Your task to perform on an android device: Go to notification settings Image 0: 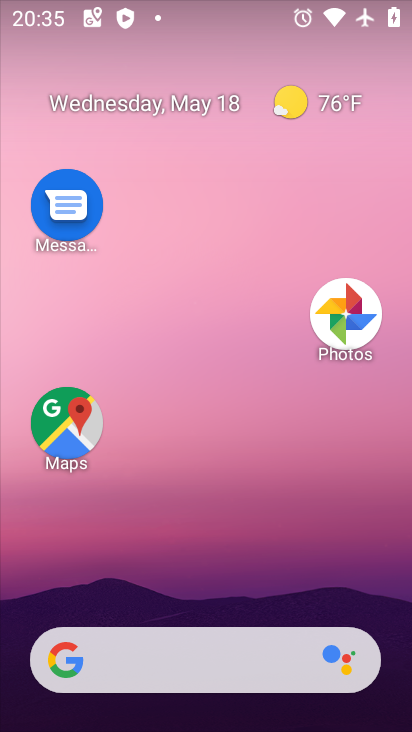
Step 0: drag from (224, 615) to (191, 38)
Your task to perform on an android device: Go to notification settings Image 1: 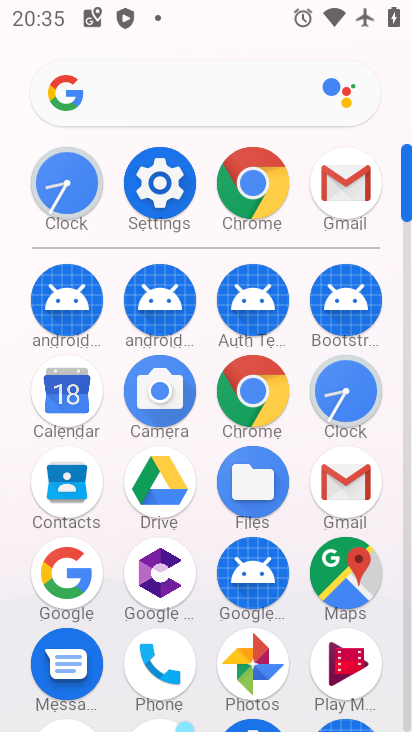
Step 1: click (144, 187)
Your task to perform on an android device: Go to notification settings Image 2: 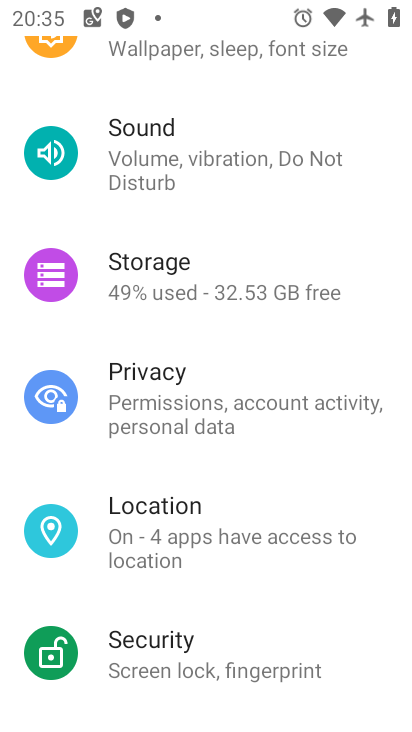
Step 2: drag from (165, 475) to (81, 730)
Your task to perform on an android device: Go to notification settings Image 3: 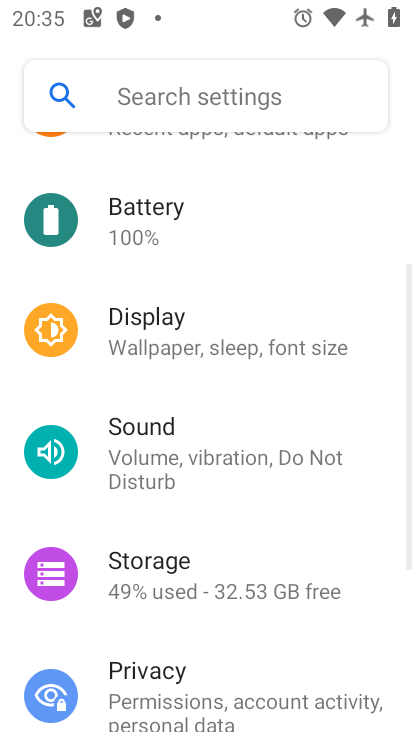
Step 3: drag from (233, 187) to (224, 496)
Your task to perform on an android device: Go to notification settings Image 4: 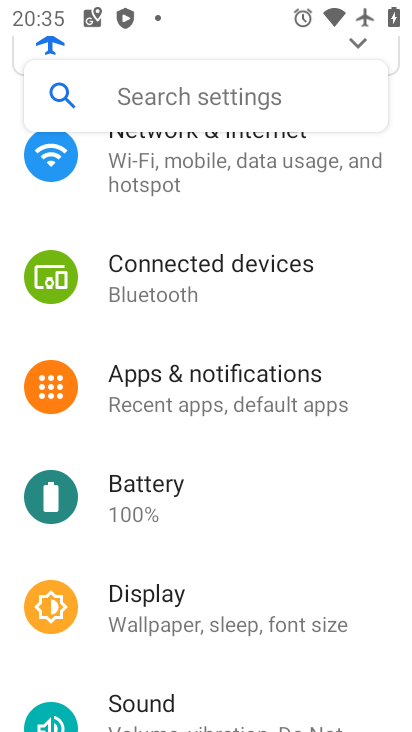
Step 4: click (210, 406)
Your task to perform on an android device: Go to notification settings Image 5: 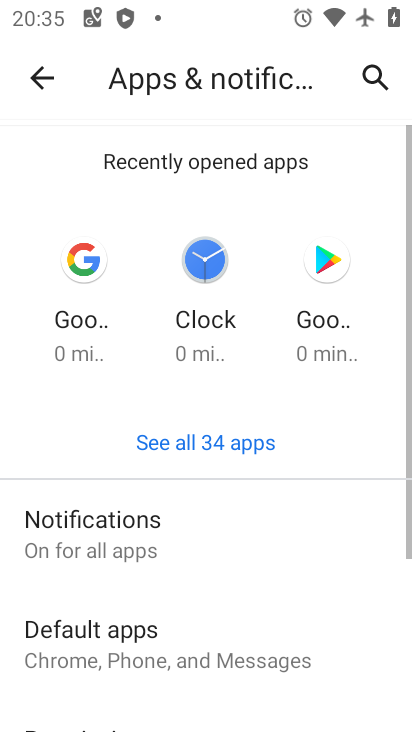
Step 5: click (160, 555)
Your task to perform on an android device: Go to notification settings Image 6: 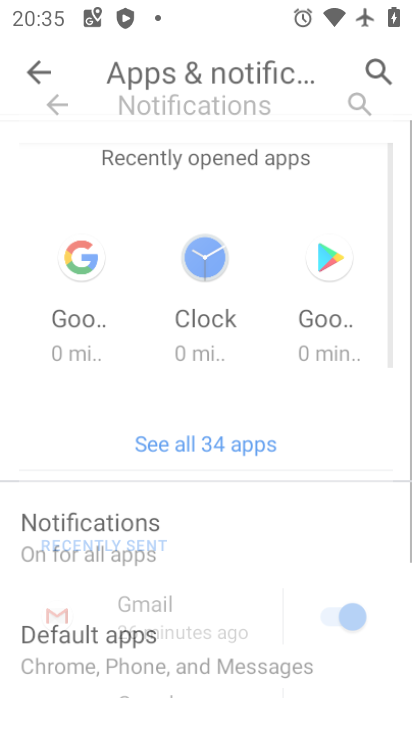
Step 6: task complete